Your task to perform on an android device: Open calendar and show me the fourth week of next month Image 0: 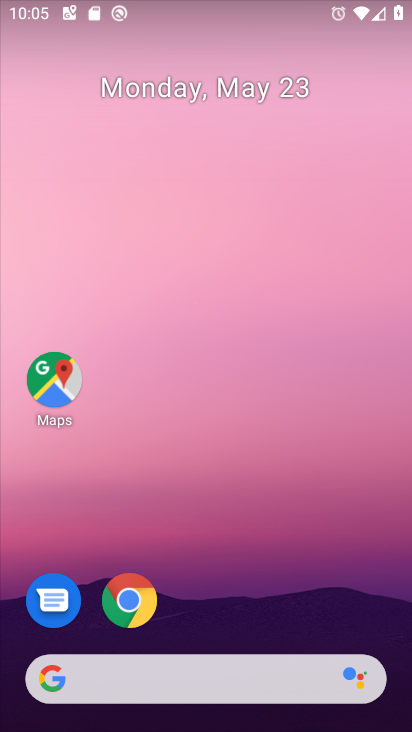
Step 0: drag from (216, 693) to (241, 59)
Your task to perform on an android device: Open calendar and show me the fourth week of next month Image 1: 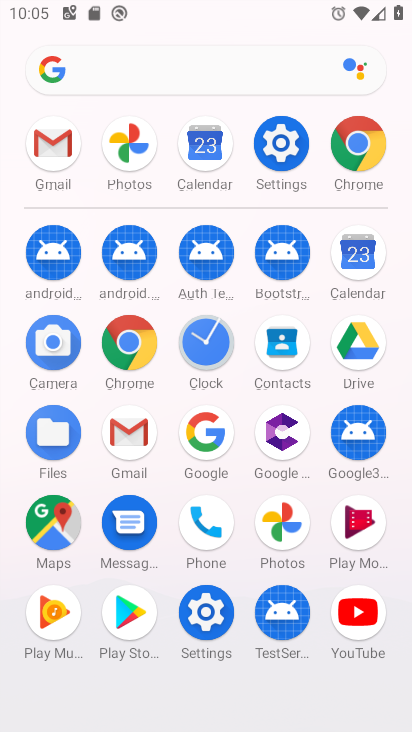
Step 1: click (349, 261)
Your task to perform on an android device: Open calendar and show me the fourth week of next month Image 2: 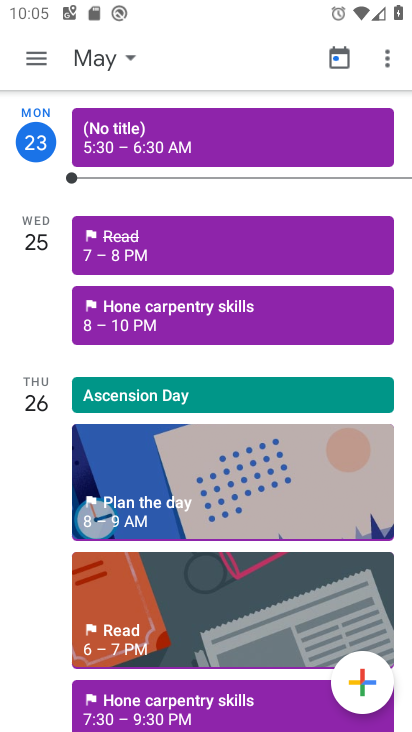
Step 2: click (127, 53)
Your task to perform on an android device: Open calendar and show me the fourth week of next month Image 3: 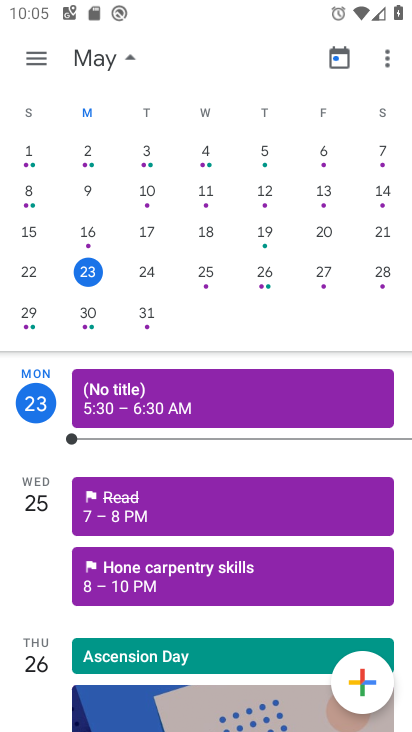
Step 3: drag from (365, 246) to (12, 263)
Your task to perform on an android device: Open calendar and show me the fourth week of next month Image 4: 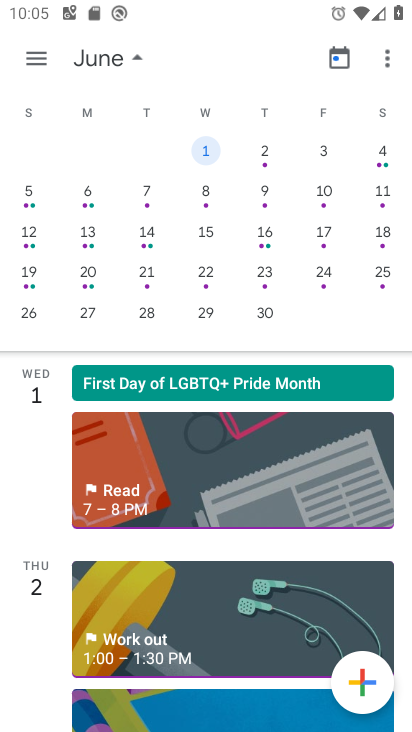
Step 4: click (85, 308)
Your task to perform on an android device: Open calendar and show me the fourth week of next month Image 5: 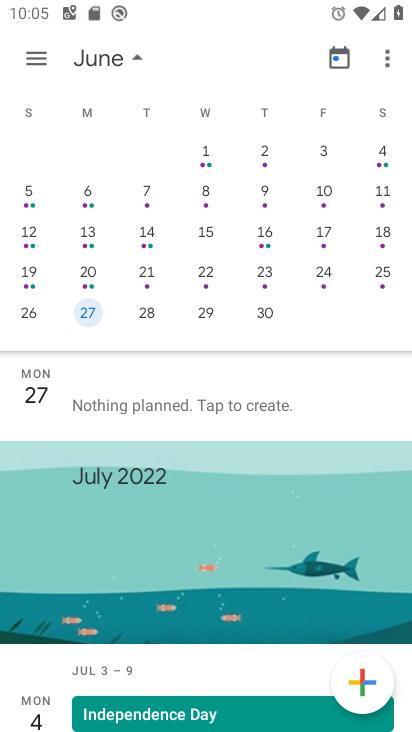
Step 5: click (35, 52)
Your task to perform on an android device: Open calendar and show me the fourth week of next month Image 6: 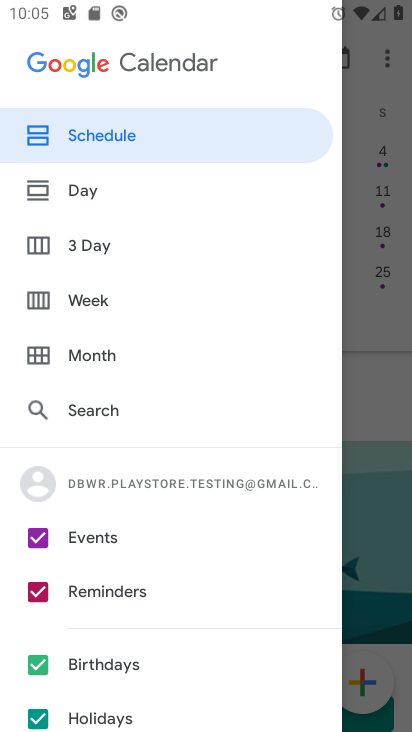
Step 6: click (84, 297)
Your task to perform on an android device: Open calendar and show me the fourth week of next month Image 7: 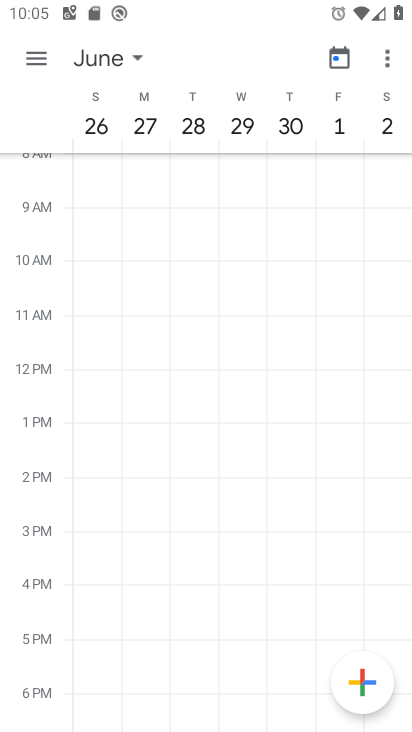
Step 7: click (42, 51)
Your task to perform on an android device: Open calendar and show me the fourth week of next month Image 8: 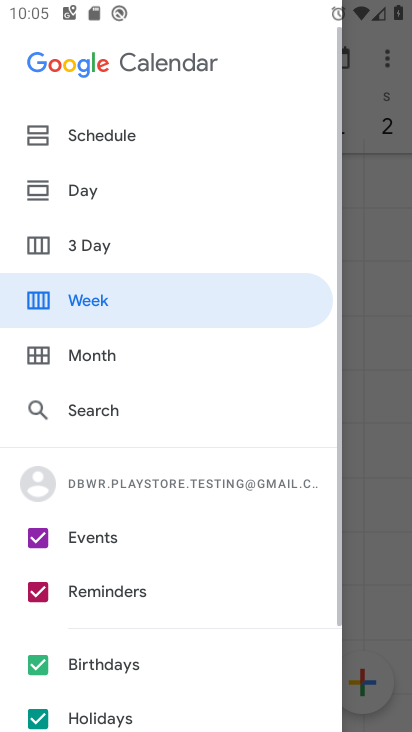
Step 8: click (107, 299)
Your task to perform on an android device: Open calendar and show me the fourth week of next month Image 9: 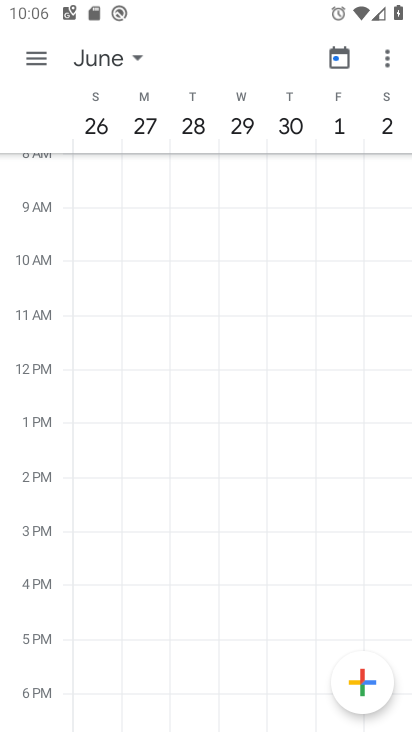
Step 9: task complete